Your task to perform on an android device: turn pop-ups on in chrome Image 0: 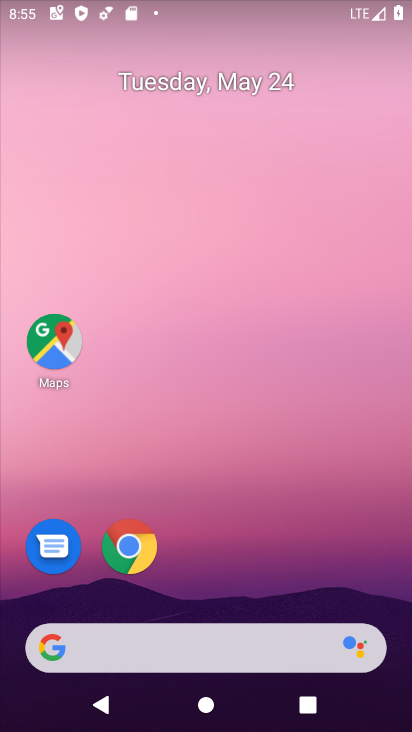
Step 0: click (140, 549)
Your task to perform on an android device: turn pop-ups on in chrome Image 1: 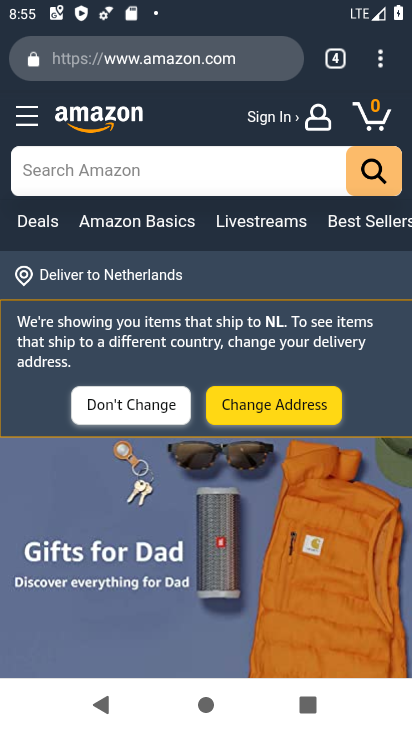
Step 1: click (377, 68)
Your task to perform on an android device: turn pop-ups on in chrome Image 2: 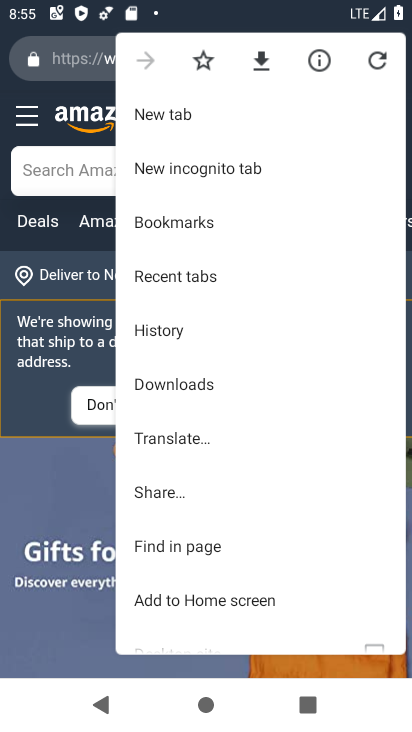
Step 2: drag from (262, 459) to (260, 119)
Your task to perform on an android device: turn pop-ups on in chrome Image 3: 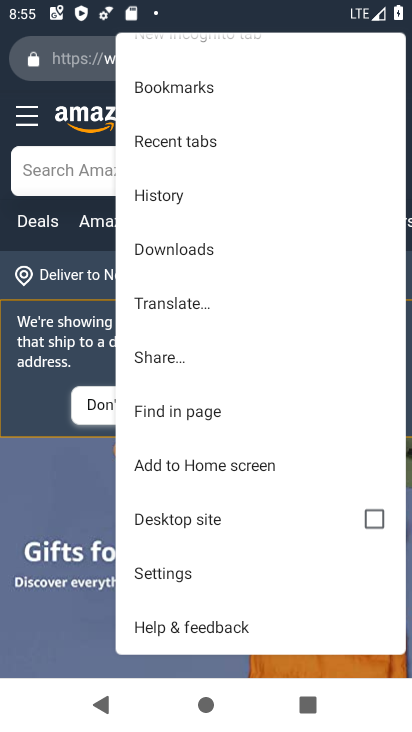
Step 3: click (174, 572)
Your task to perform on an android device: turn pop-ups on in chrome Image 4: 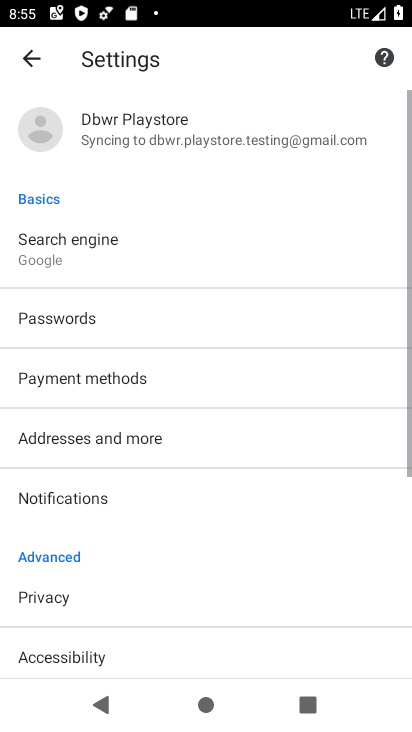
Step 4: drag from (175, 565) to (214, 255)
Your task to perform on an android device: turn pop-ups on in chrome Image 5: 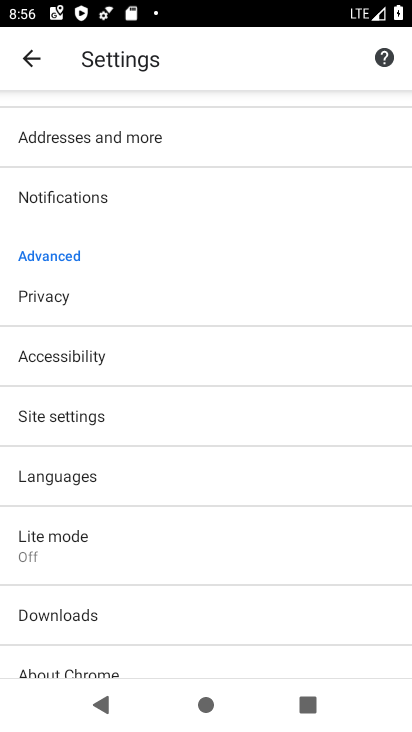
Step 5: click (185, 398)
Your task to perform on an android device: turn pop-ups on in chrome Image 6: 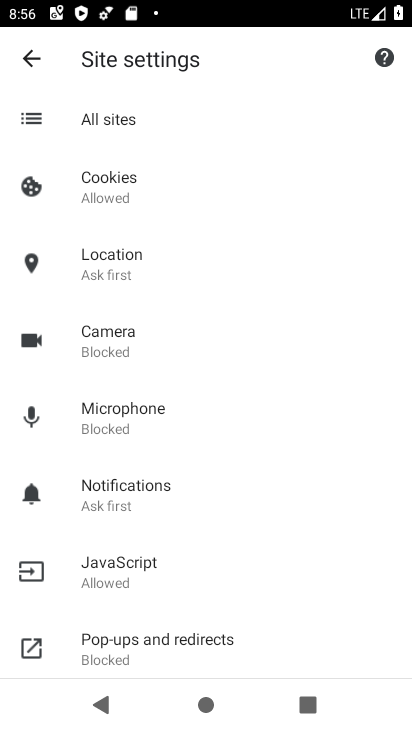
Step 6: click (183, 640)
Your task to perform on an android device: turn pop-ups on in chrome Image 7: 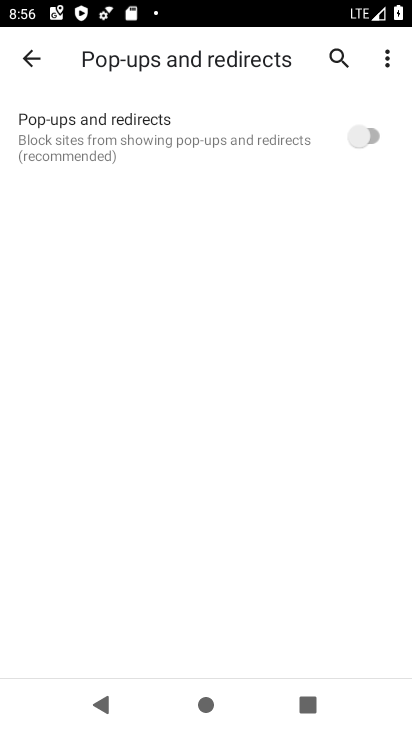
Step 7: click (365, 131)
Your task to perform on an android device: turn pop-ups on in chrome Image 8: 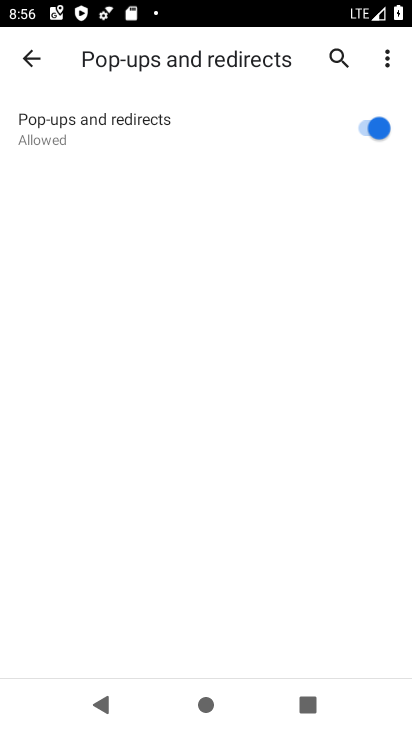
Step 8: task complete